Your task to perform on an android device: change the clock display to digital Image 0: 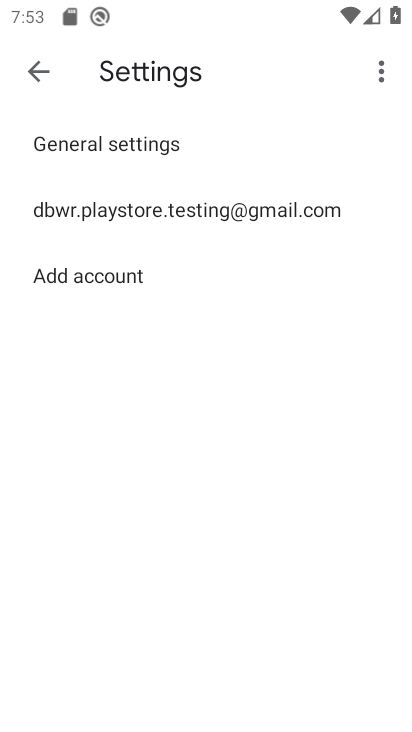
Step 0: press home button
Your task to perform on an android device: change the clock display to digital Image 1: 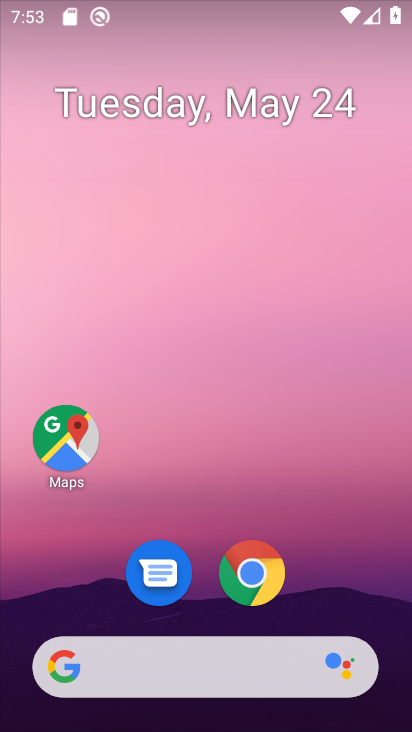
Step 1: drag from (330, 599) to (326, 187)
Your task to perform on an android device: change the clock display to digital Image 2: 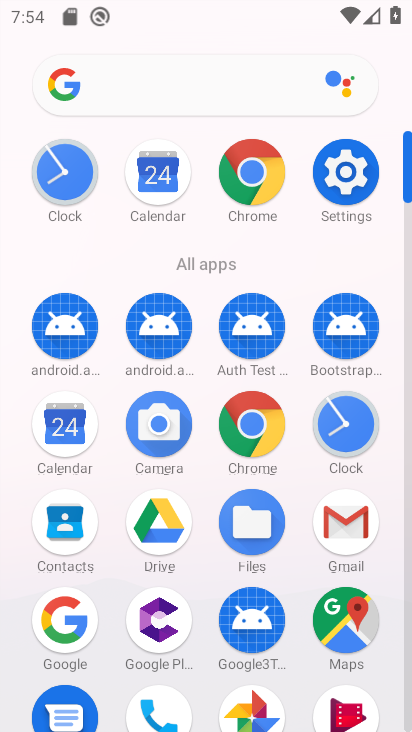
Step 2: click (50, 183)
Your task to perform on an android device: change the clock display to digital Image 3: 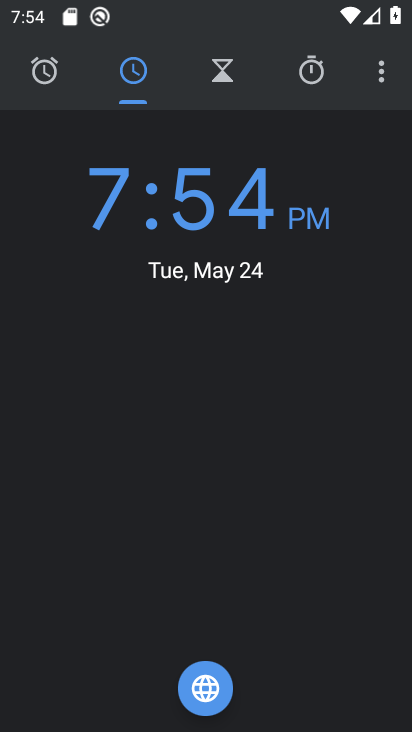
Step 3: click (379, 75)
Your task to perform on an android device: change the clock display to digital Image 4: 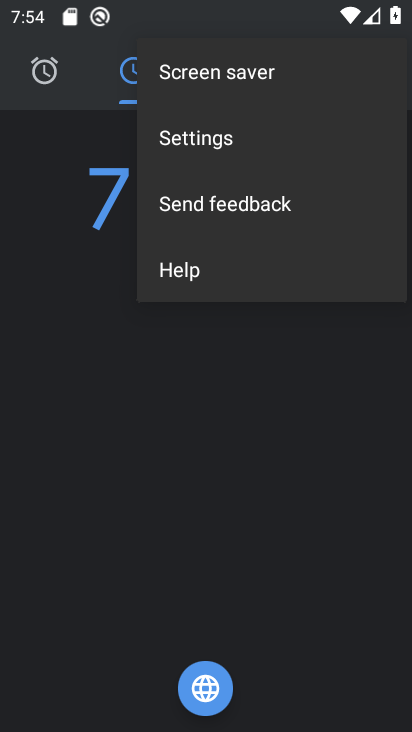
Step 4: click (235, 155)
Your task to perform on an android device: change the clock display to digital Image 5: 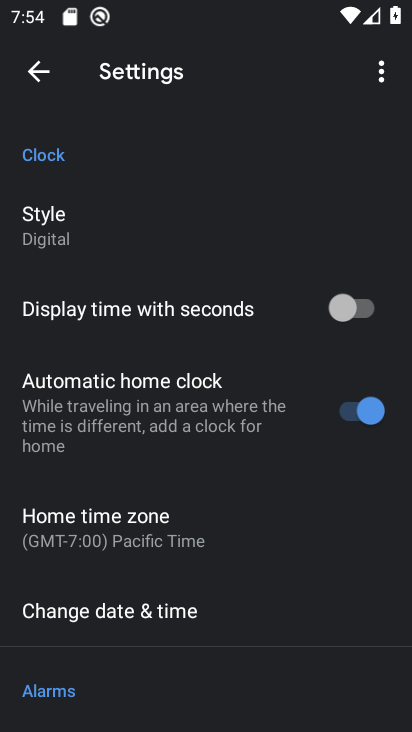
Step 5: click (58, 233)
Your task to perform on an android device: change the clock display to digital Image 6: 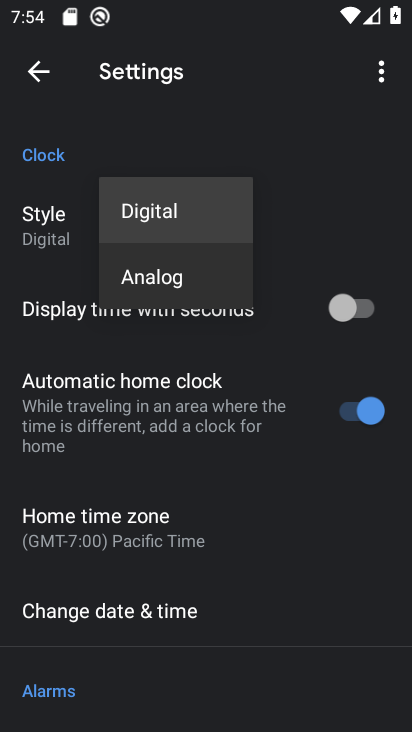
Step 6: task complete